Your task to perform on an android device: check google app version Image 0: 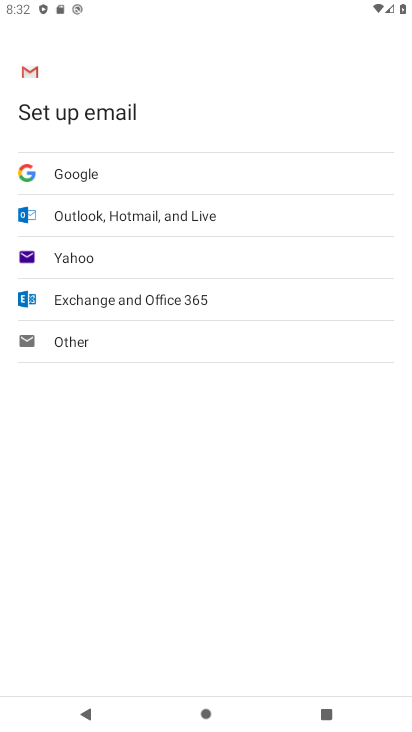
Step 0: press home button
Your task to perform on an android device: check google app version Image 1: 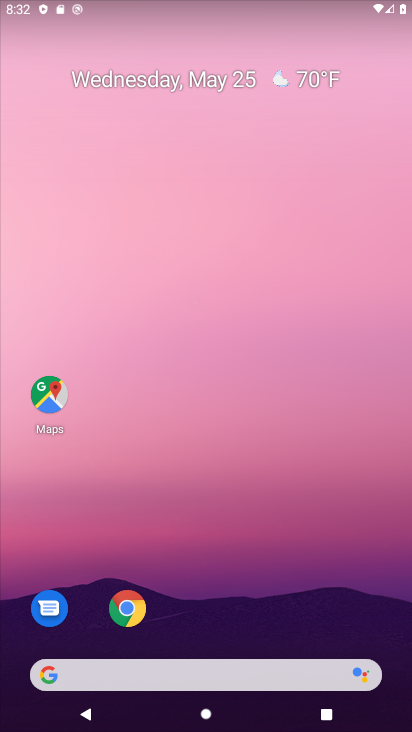
Step 1: drag from (278, 597) to (171, 26)
Your task to perform on an android device: check google app version Image 2: 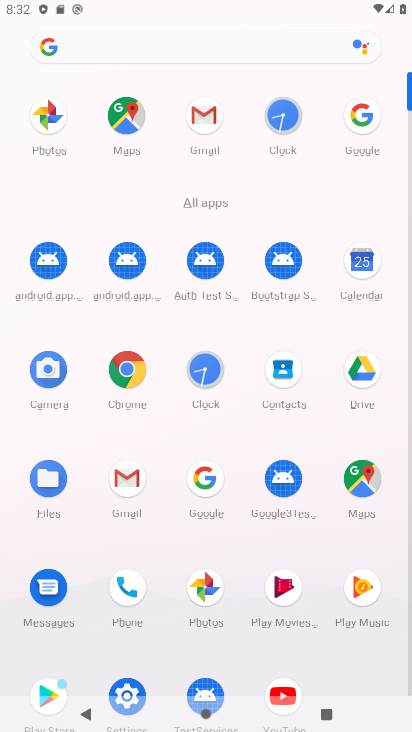
Step 2: click (214, 481)
Your task to perform on an android device: check google app version Image 3: 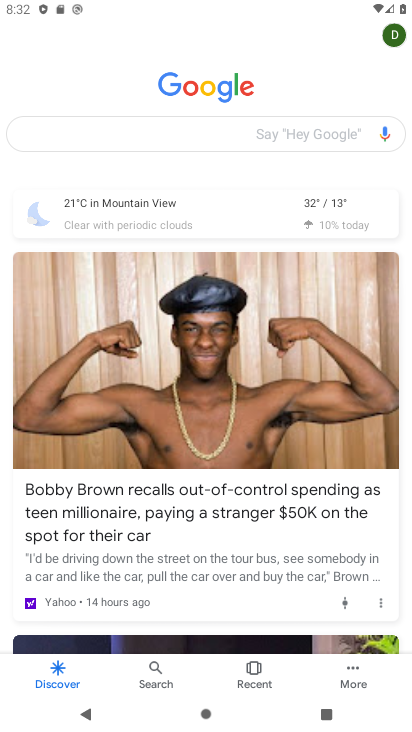
Step 3: click (355, 674)
Your task to perform on an android device: check google app version Image 4: 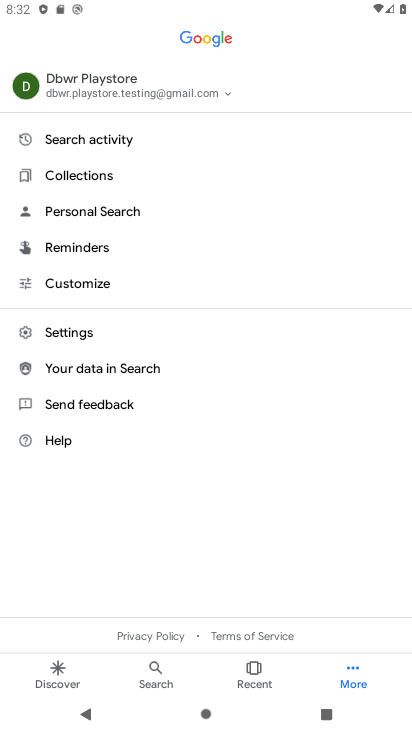
Step 4: click (76, 329)
Your task to perform on an android device: check google app version Image 5: 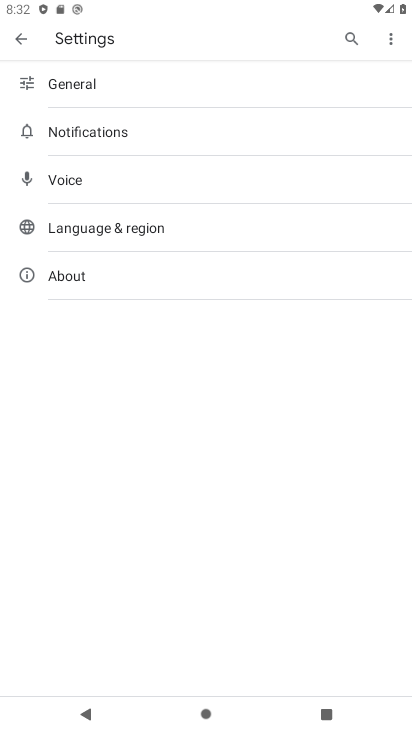
Step 5: click (76, 271)
Your task to perform on an android device: check google app version Image 6: 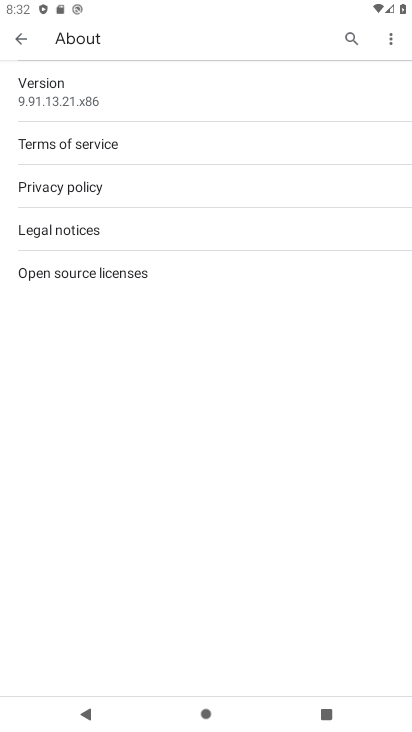
Step 6: task complete